Your task to perform on an android device: turn off sleep mode Image 0: 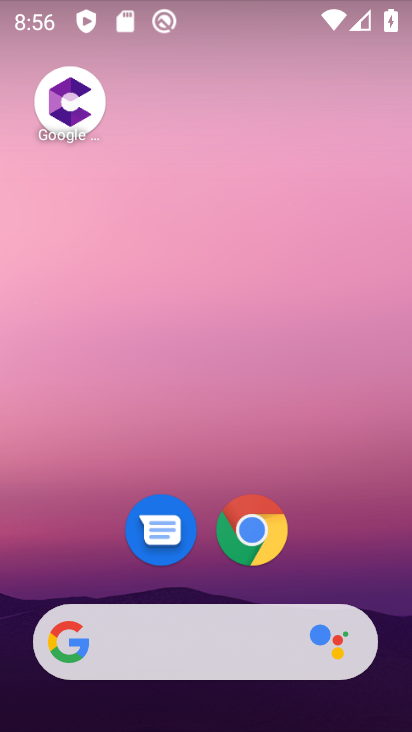
Step 0: drag from (319, 527) to (251, 45)
Your task to perform on an android device: turn off sleep mode Image 1: 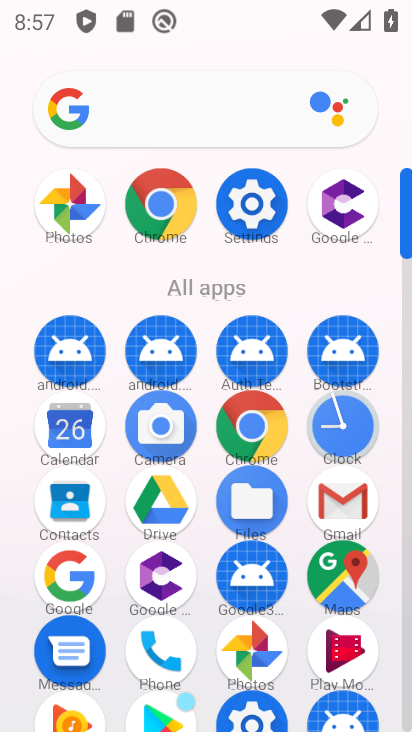
Step 1: click (253, 201)
Your task to perform on an android device: turn off sleep mode Image 2: 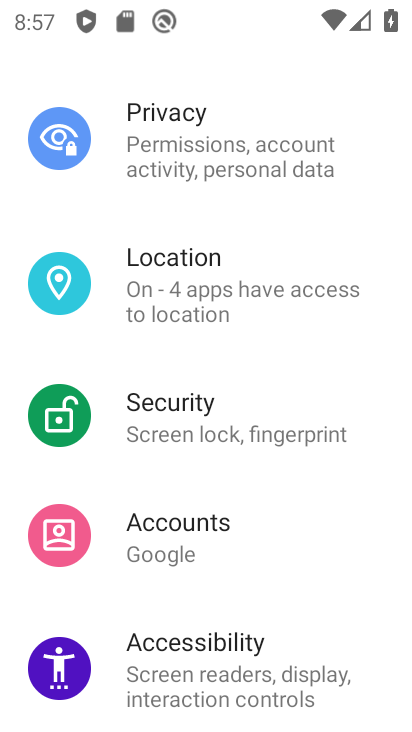
Step 2: drag from (265, 163) to (284, 521)
Your task to perform on an android device: turn off sleep mode Image 3: 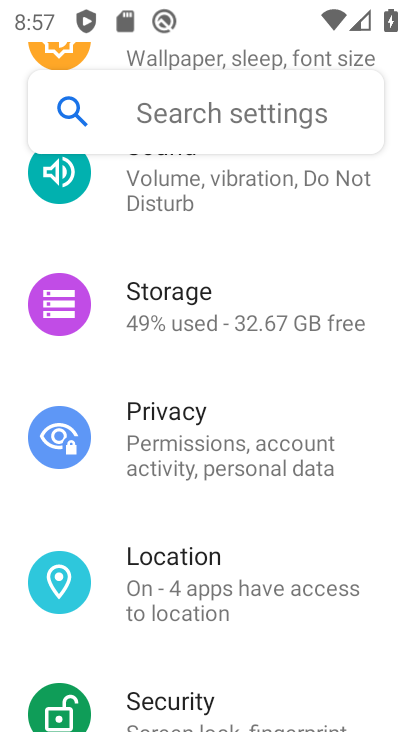
Step 3: drag from (280, 285) to (269, 609)
Your task to perform on an android device: turn off sleep mode Image 4: 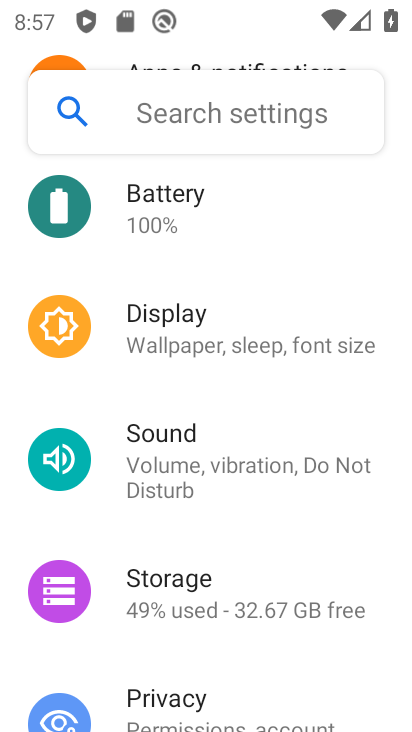
Step 4: drag from (258, 292) to (256, 554)
Your task to perform on an android device: turn off sleep mode Image 5: 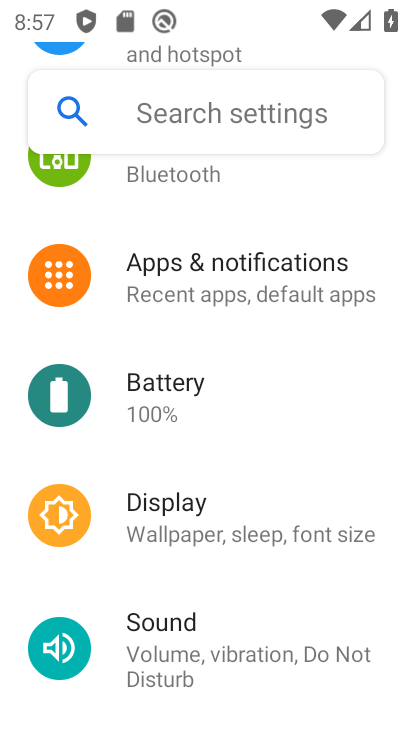
Step 5: drag from (280, 267) to (254, 597)
Your task to perform on an android device: turn off sleep mode Image 6: 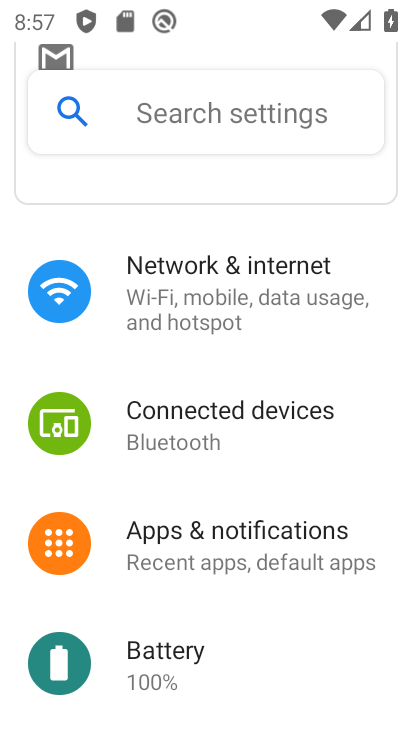
Step 6: click (232, 286)
Your task to perform on an android device: turn off sleep mode Image 7: 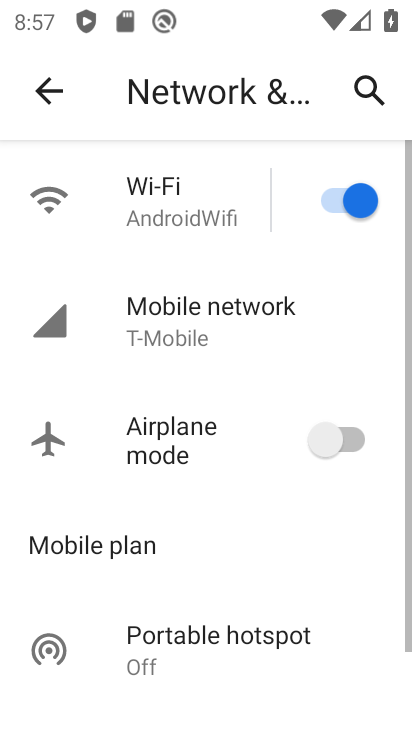
Step 7: click (53, 84)
Your task to perform on an android device: turn off sleep mode Image 8: 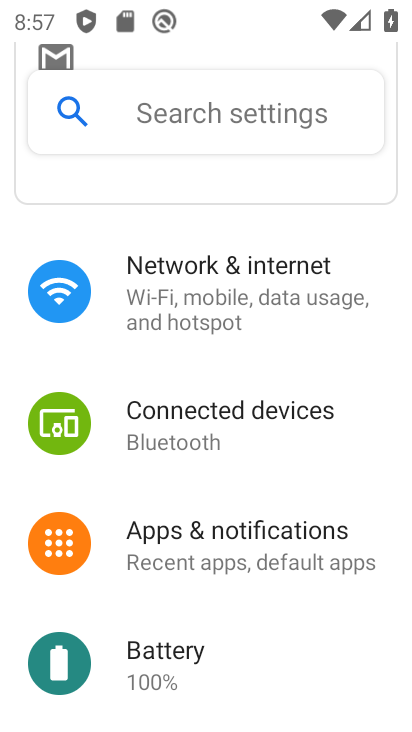
Step 8: drag from (244, 561) to (278, 212)
Your task to perform on an android device: turn off sleep mode Image 9: 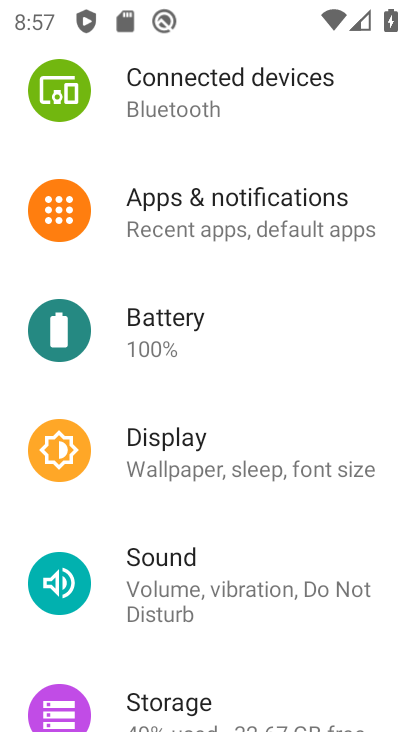
Step 9: click (267, 454)
Your task to perform on an android device: turn off sleep mode Image 10: 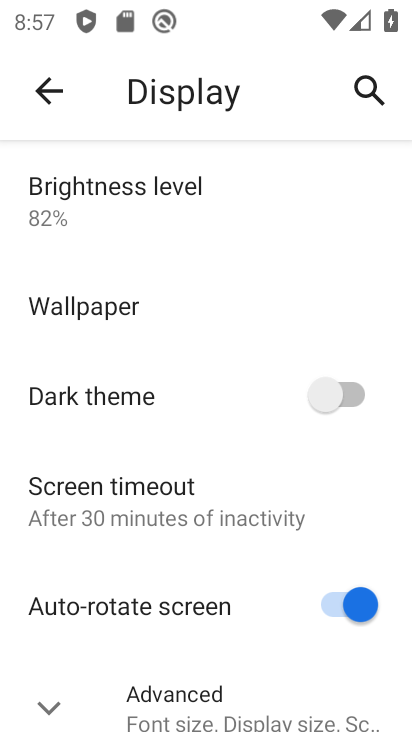
Step 10: click (57, 709)
Your task to perform on an android device: turn off sleep mode Image 11: 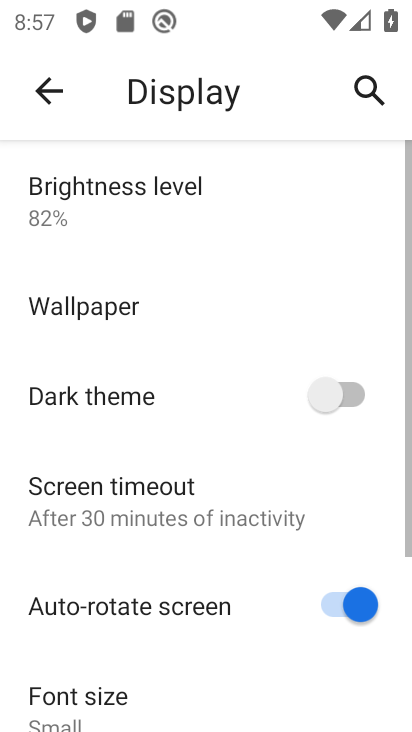
Step 11: task complete